Your task to perform on an android device: search for starred emails in the gmail app Image 0: 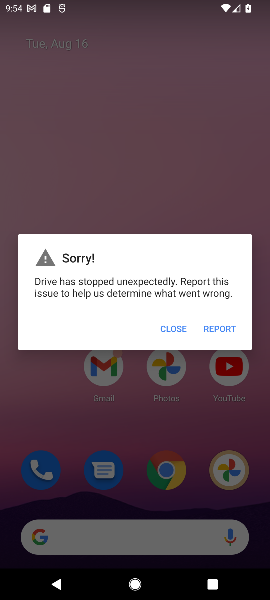
Step 0: press home button
Your task to perform on an android device: search for starred emails in the gmail app Image 1: 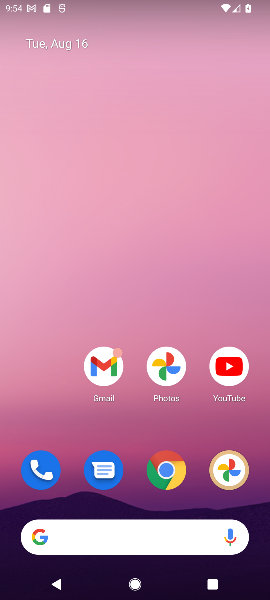
Step 1: click (112, 377)
Your task to perform on an android device: search for starred emails in the gmail app Image 2: 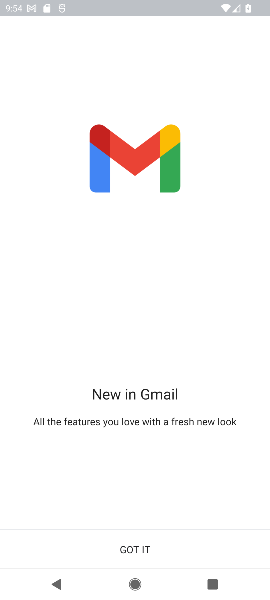
Step 2: click (177, 546)
Your task to perform on an android device: search for starred emails in the gmail app Image 3: 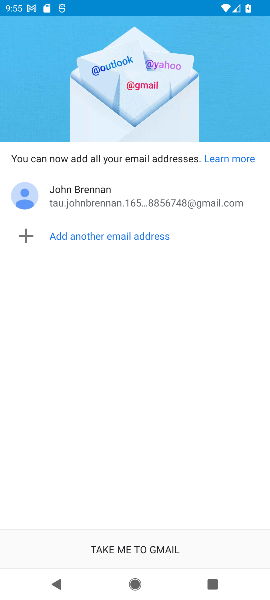
Step 3: click (174, 548)
Your task to perform on an android device: search for starred emails in the gmail app Image 4: 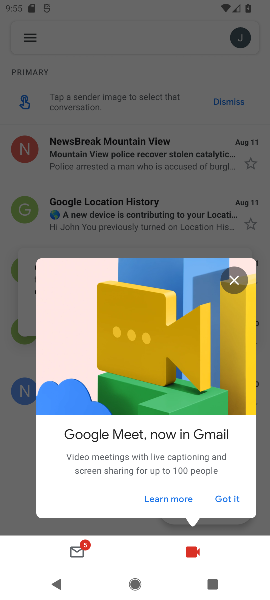
Step 4: click (240, 279)
Your task to perform on an android device: search for starred emails in the gmail app Image 5: 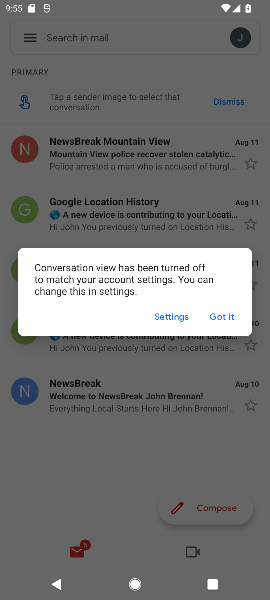
Step 5: click (216, 313)
Your task to perform on an android device: search for starred emails in the gmail app Image 6: 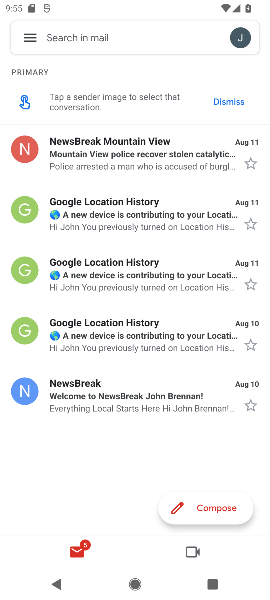
Step 6: click (30, 38)
Your task to perform on an android device: search for starred emails in the gmail app Image 7: 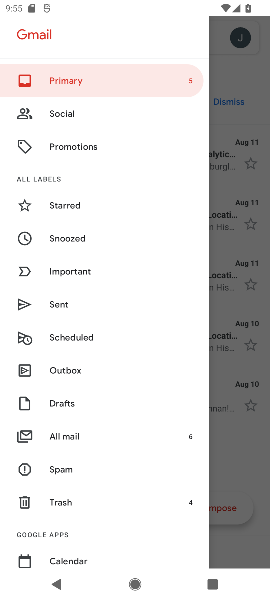
Step 7: click (64, 207)
Your task to perform on an android device: search for starred emails in the gmail app Image 8: 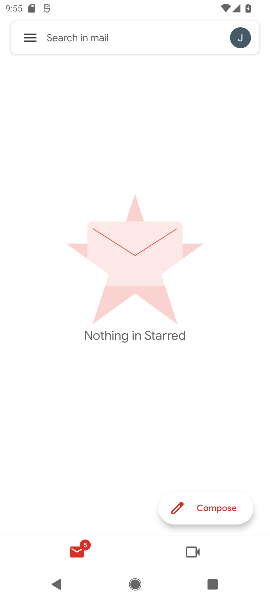
Step 8: task complete